Your task to perform on an android device: check battery use Image 0: 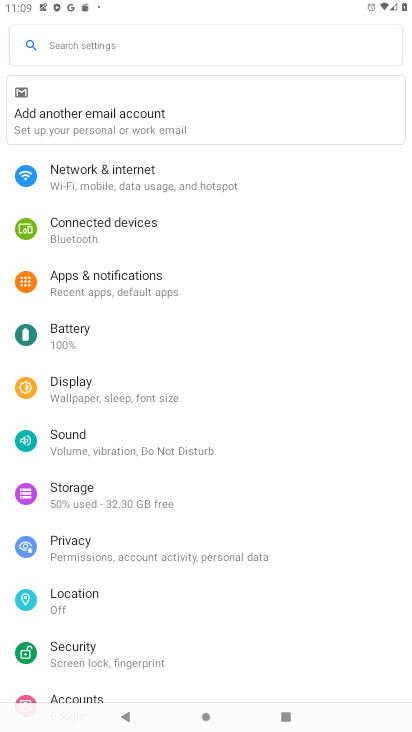
Step 0: click (132, 330)
Your task to perform on an android device: check battery use Image 1: 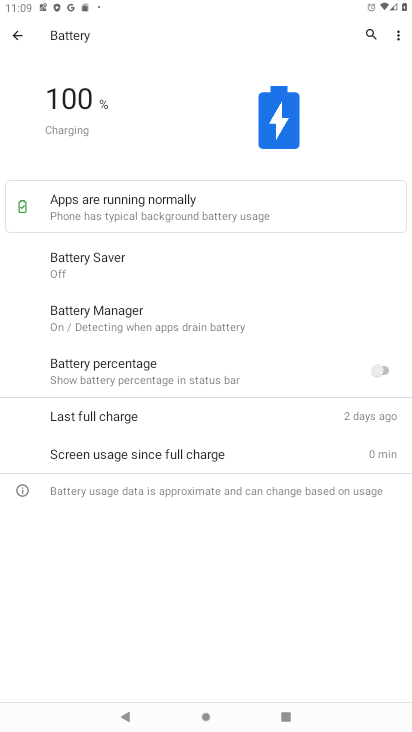
Step 1: task complete